Your task to perform on an android device: Toggle notifications for the Google Maps app Image 0: 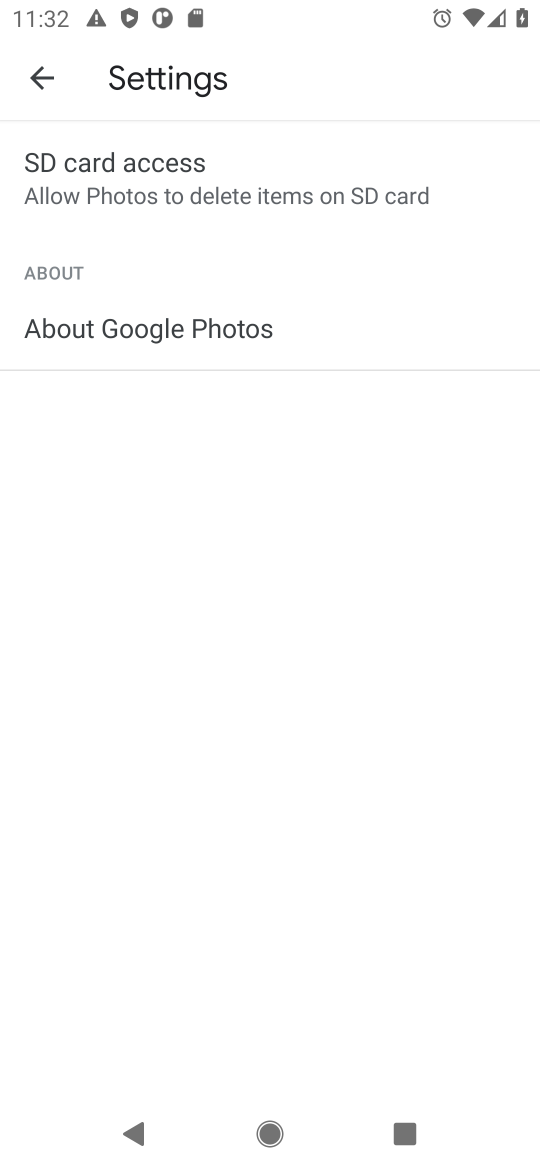
Step 0: click (525, 971)
Your task to perform on an android device: Toggle notifications for the Google Maps app Image 1: 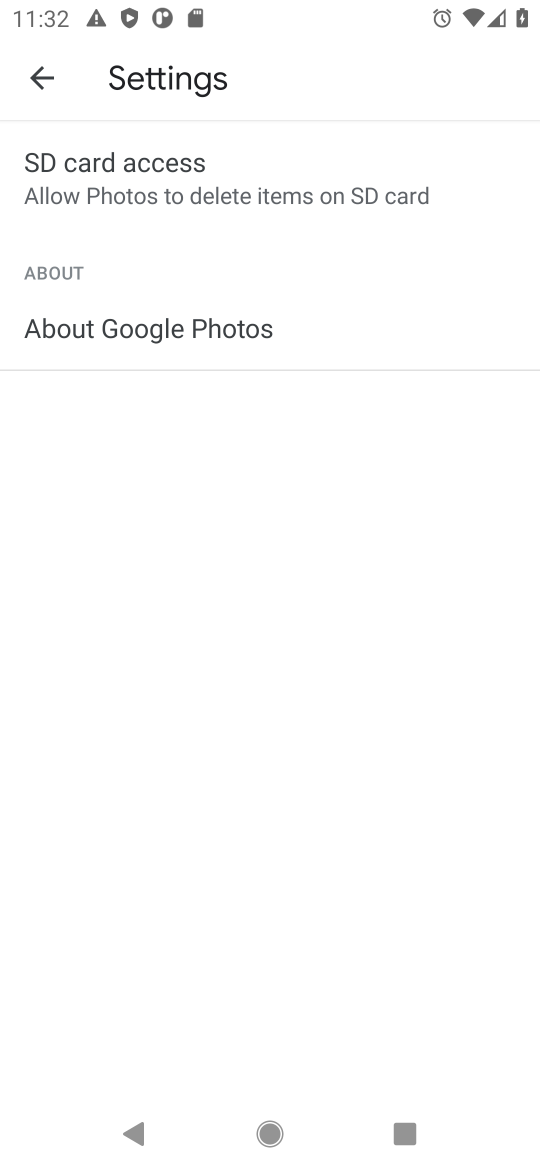
Step 1: press home button
Your task to perform on an android device: Toggle notifications for the Google Maps app Image 2: 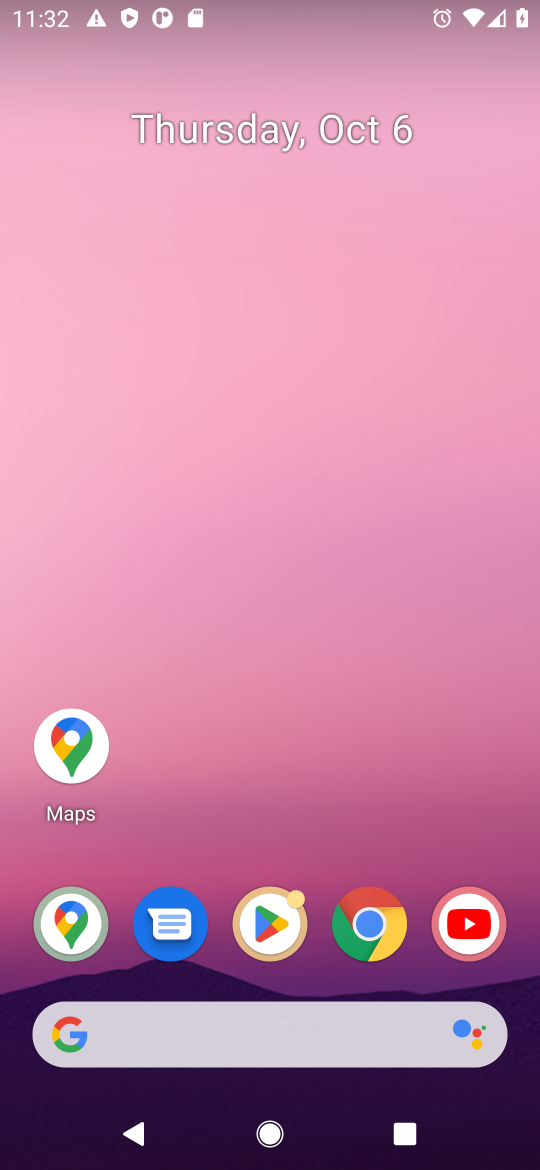
Step 2: click (83, 737)
Your task to perform on an android device: Toggle notifications for the Google Maps app Image 3: 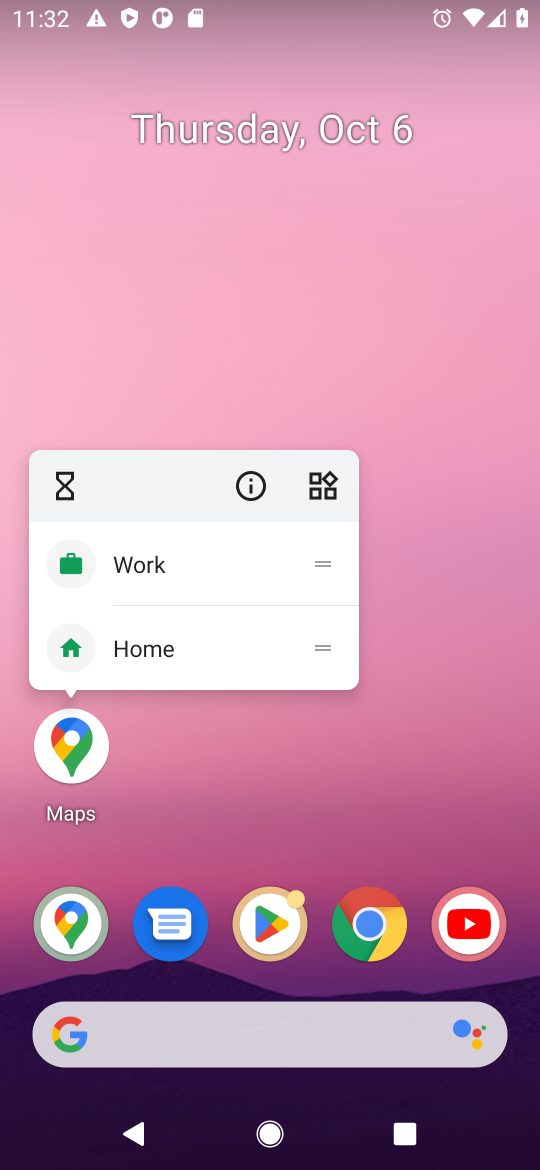
Step 3: click (83, 739)
Your task to perform on an android device: Toggle notifications for the Google Maps app Image 4: 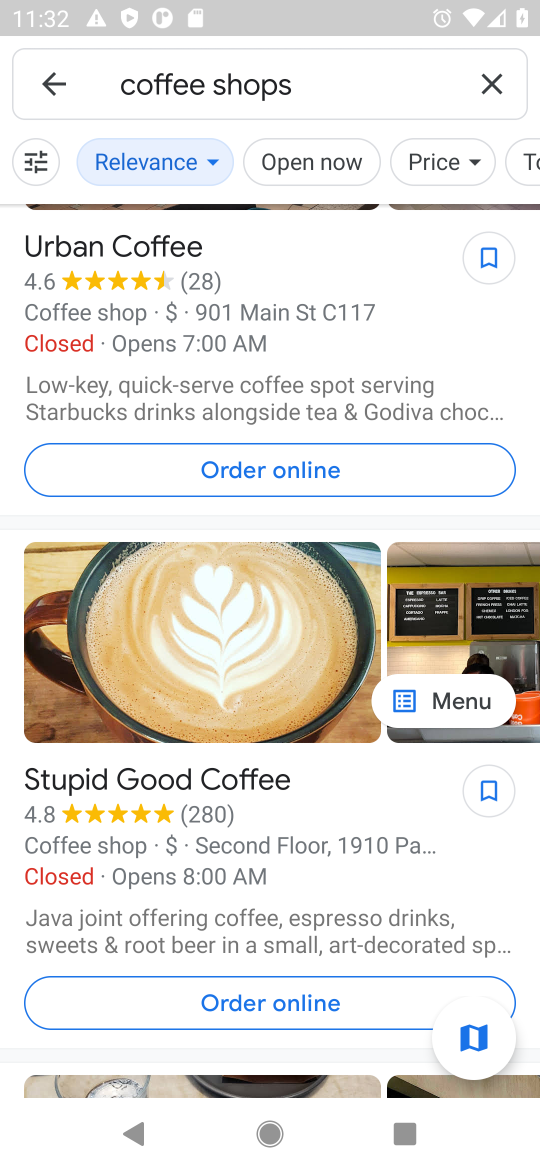
Step 4: press back button
Your task to perform on an android device: Toggle notifications for the Google Maps app Image 5: 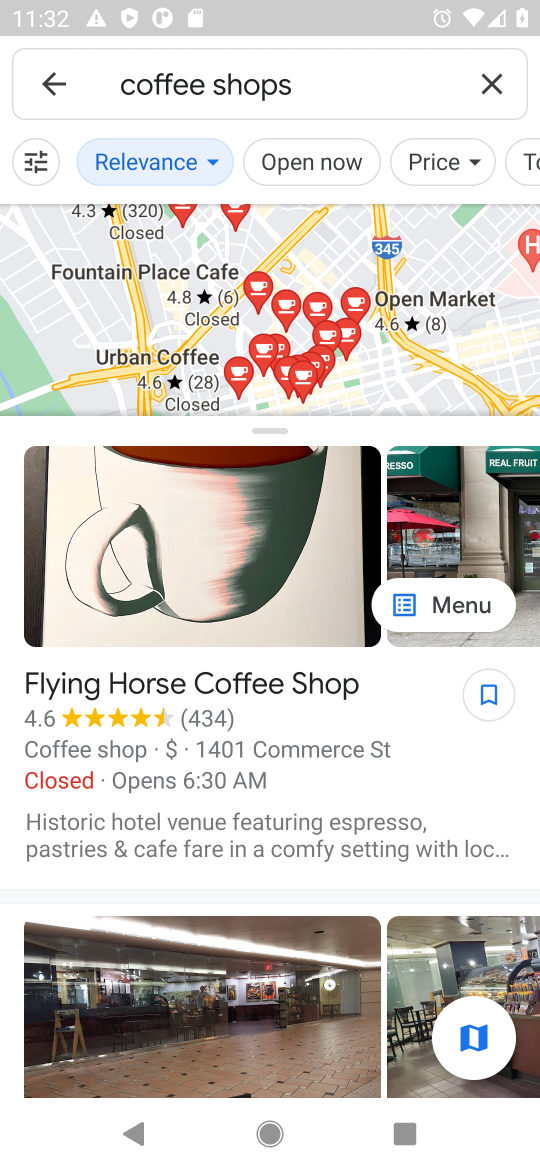
Step 5: press back button
Your task to perform on an android device: Toggle notifications for the Google Maps app Image 6: 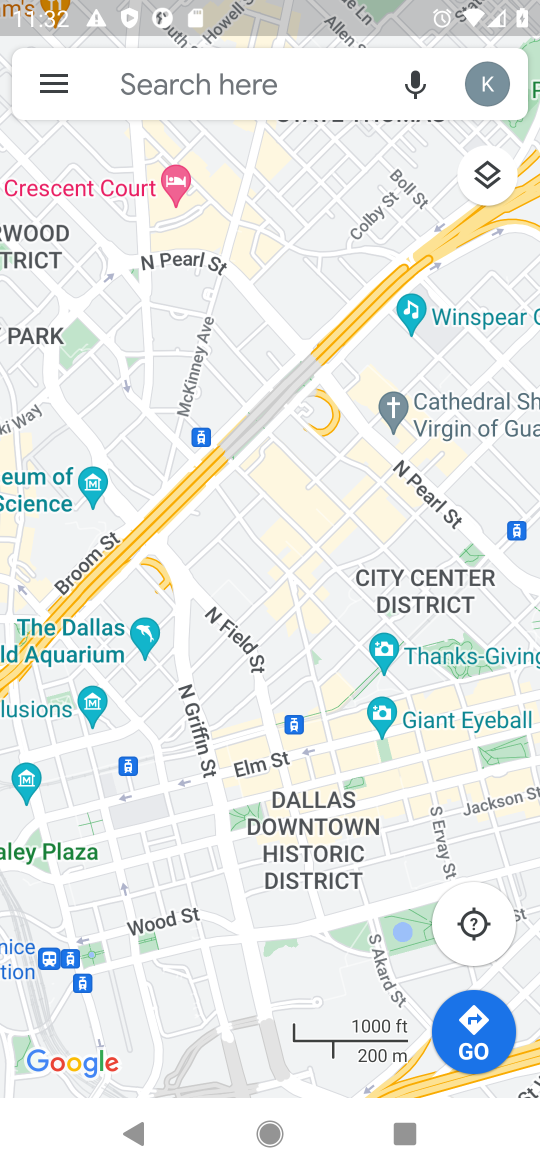
Step 6: click (57, 81)
Your task to perform on an android device: Toggle notifications for the Google Maps app Image 7: 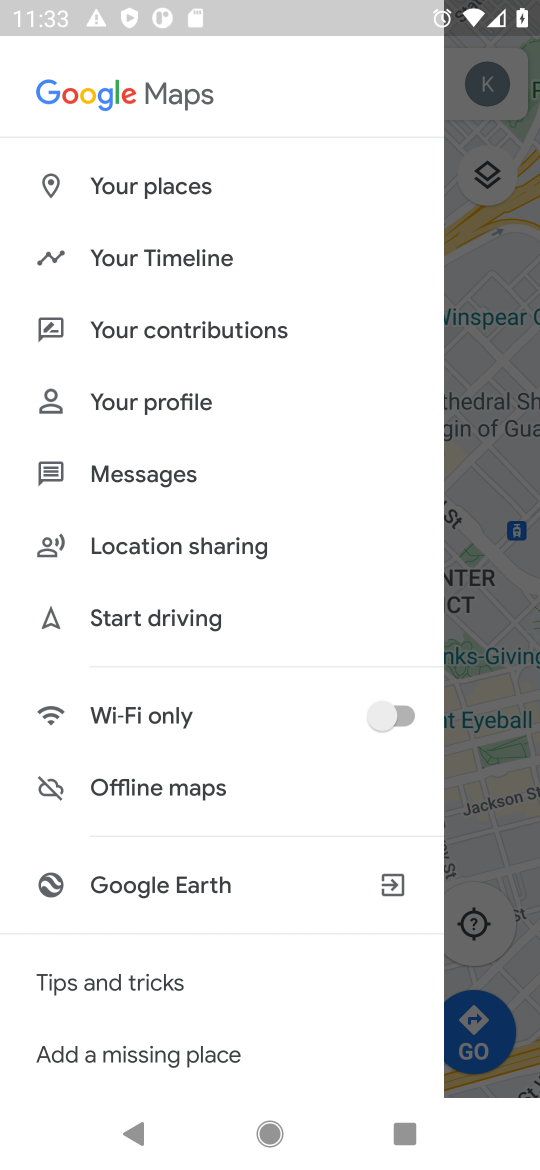
Step 7: drag from (216, 990) to (456, 311)
Your task to perform on an android device: Toggle notifications for the Google Maps app Image 8: 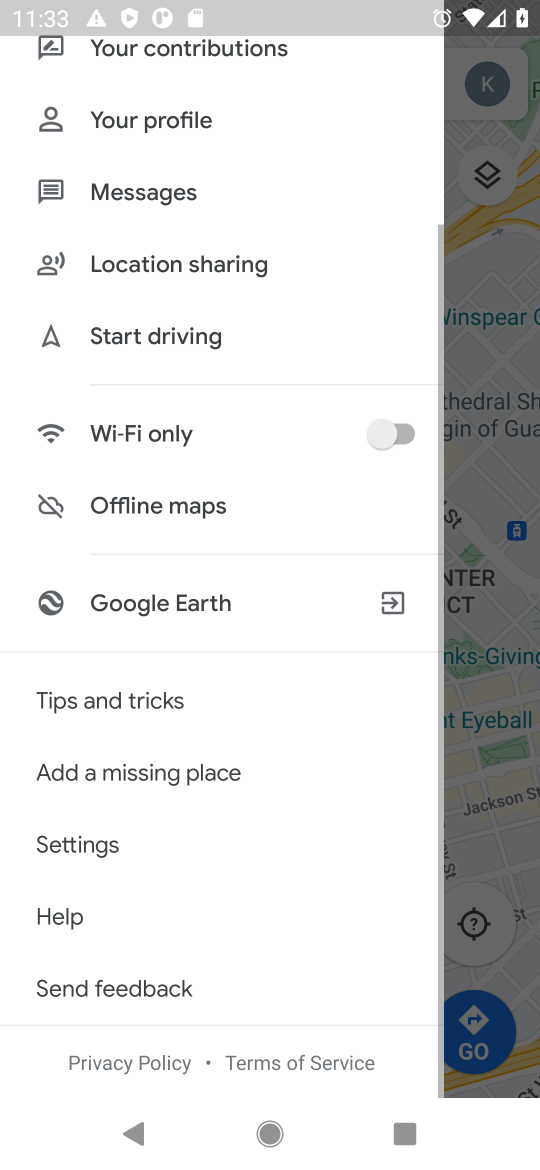
Step 8: click (79, 848)
Your task to perform on an android device: Toggle notifications for the Google Maps app Image 9: 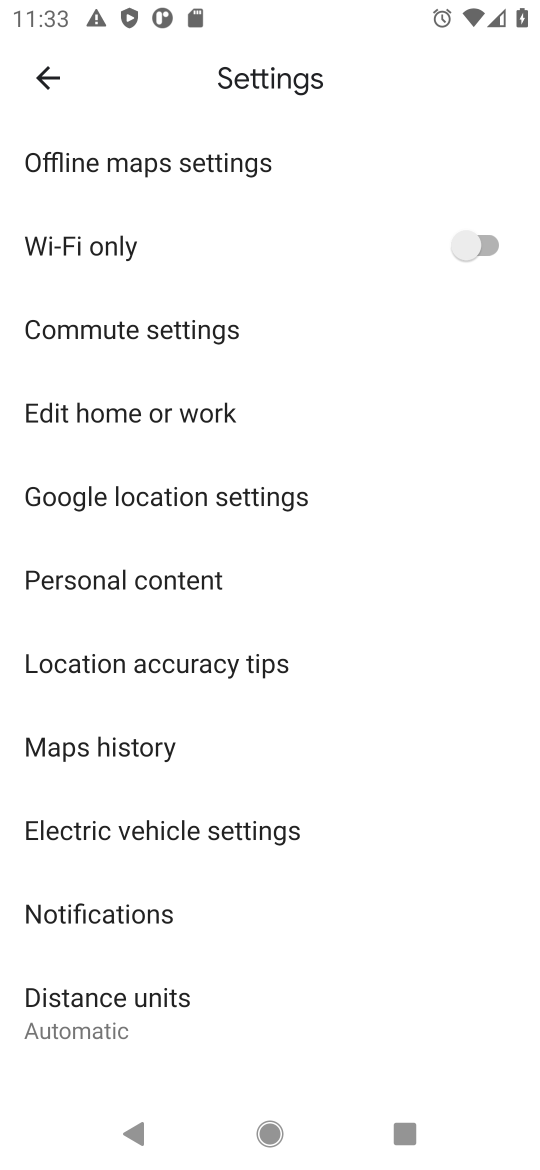
Step 9: click (148, 909)
Your task to perform on an android device: Toggle notifications for the Google Maps app Image 10: 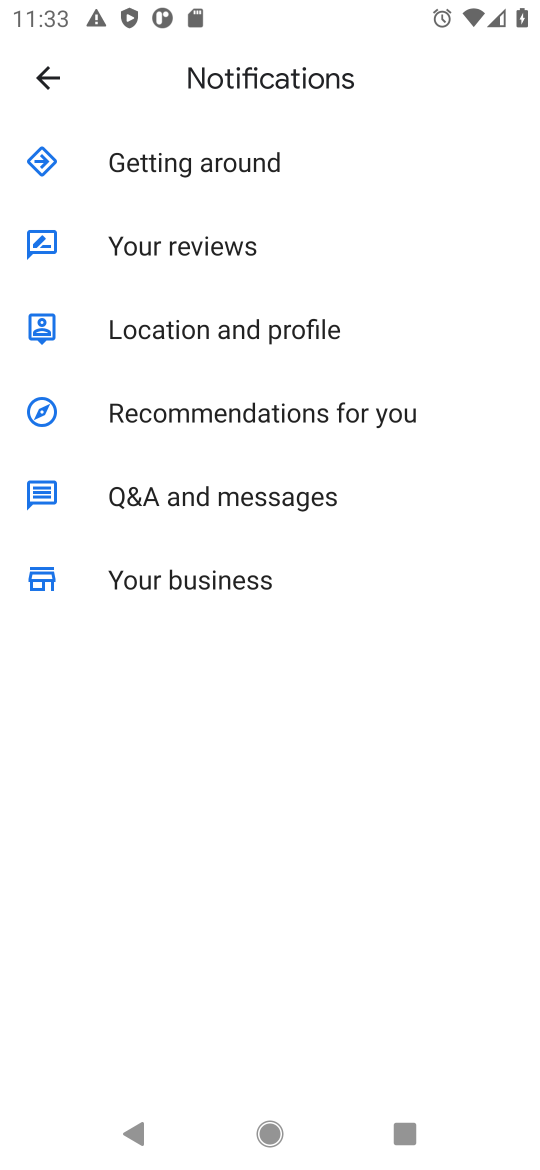
Step 10: drag from (202, 847) to (367, 118)
Your task to perform on an android device: Toggle notifications for the Google Maps app Image 11: 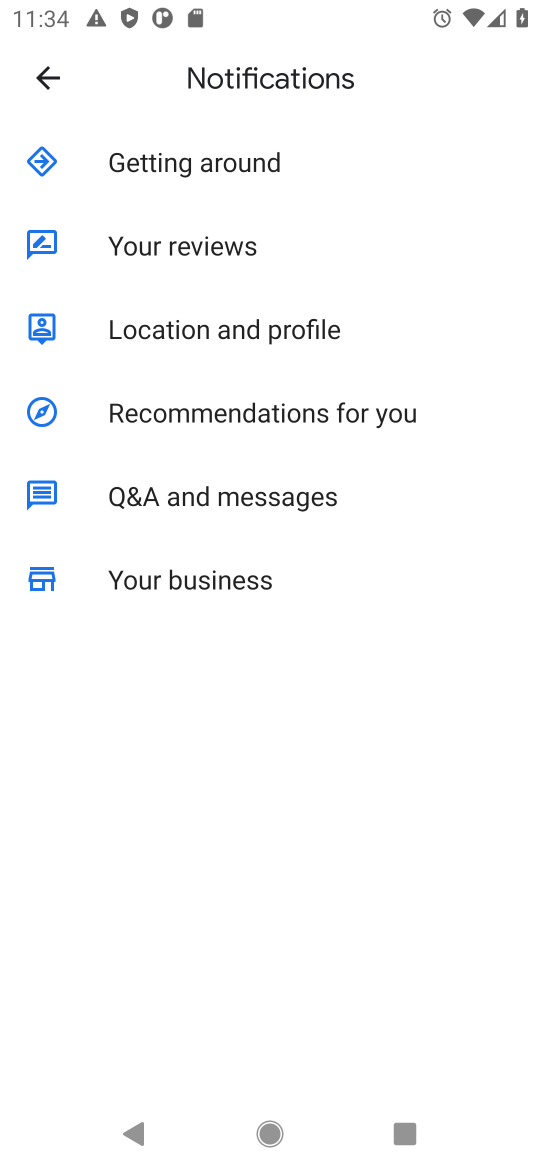
Step 11: click (47, 69)
Your task to perform on an android device: Toggle notifications for the Google Maps app Image 12: 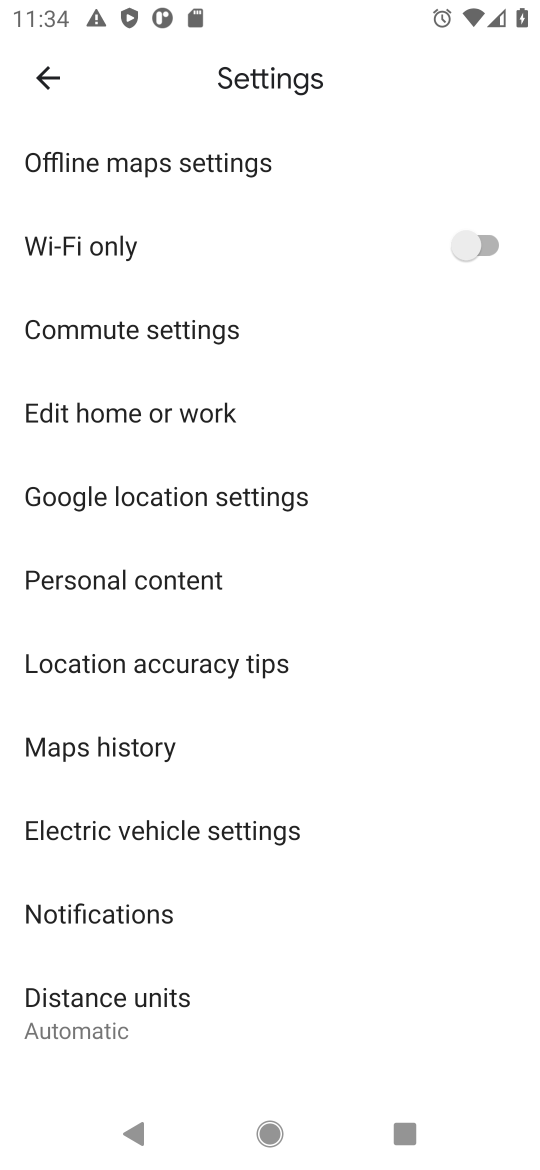
Step 12: drag from (263, 1032) to (484, 386)
Your task to perform on an android device: Toggle notifications for the Google Maps app Image 13: 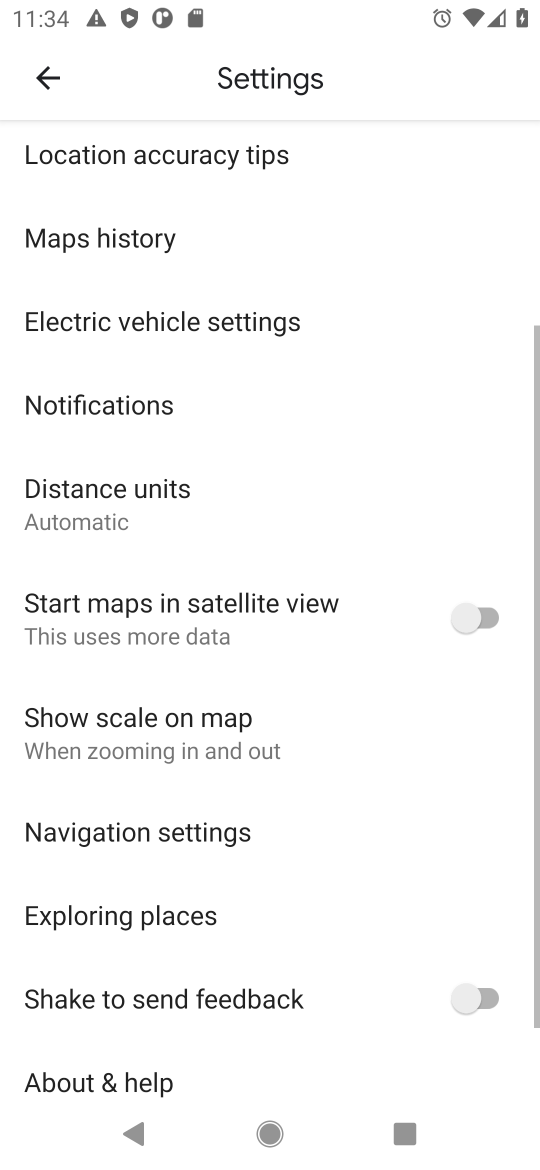
Step 13: drag from (302, 995) to (374, 312)
Your task to perform on an android device: Toggle notifications for the Google Maps app Image 14: 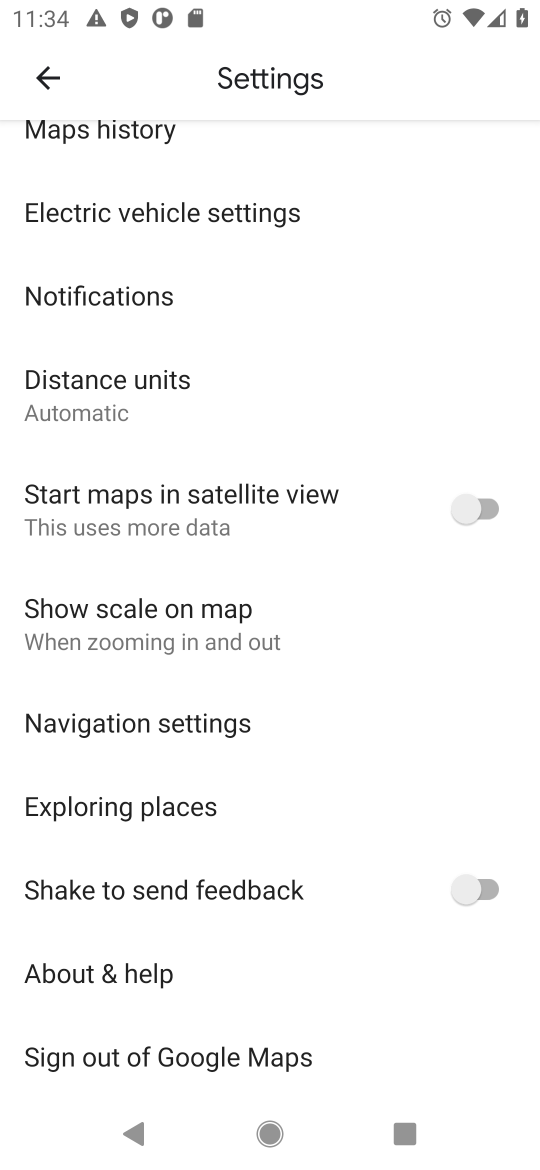
Step 14: click (106, 302)
Your task to perform on an android device: Toggle notifications for the Google Maps app Image 15: 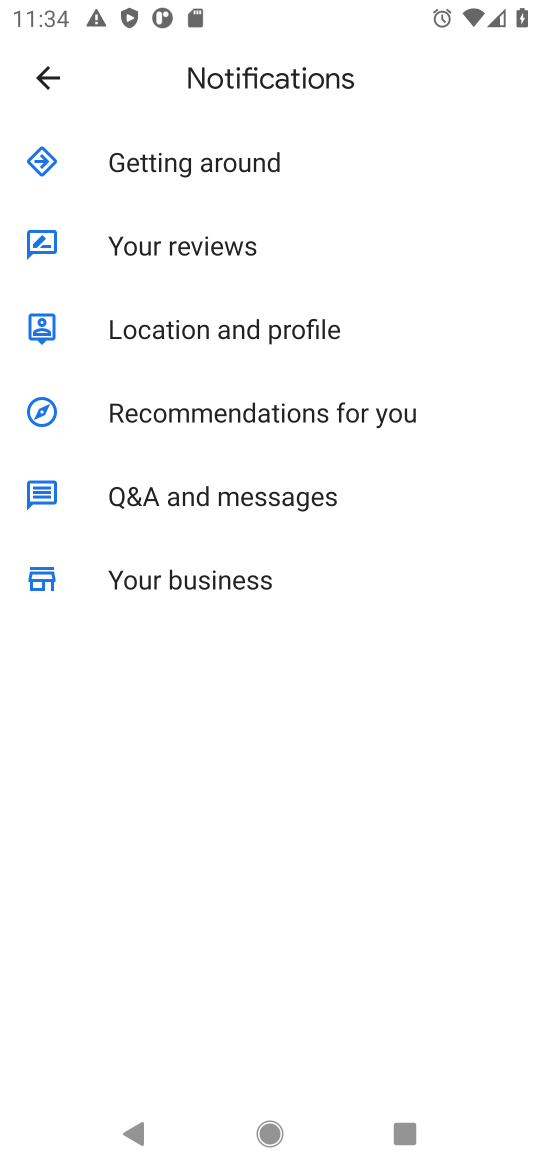
Step 15: task complete